Your task to perform on an android device: Go to network settings Image 0: 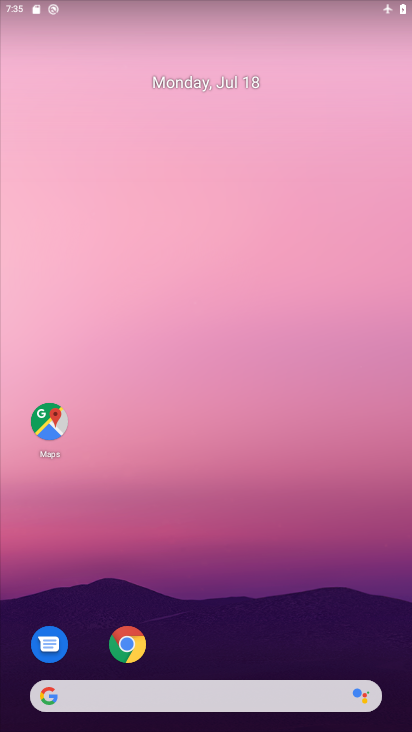
Step 0: drag from (297, 611) to (324, 197)
Your task to perform on an android device: Go to network settings Image 1: 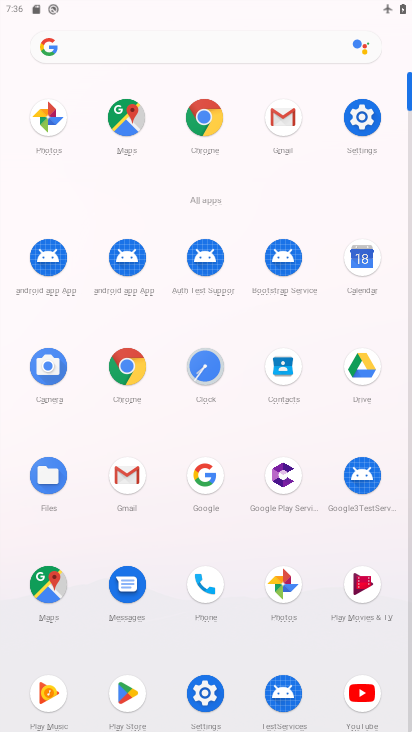
Step 1: click (376, 119)
Your task to perform on an android device: Go to network settings Image 2: 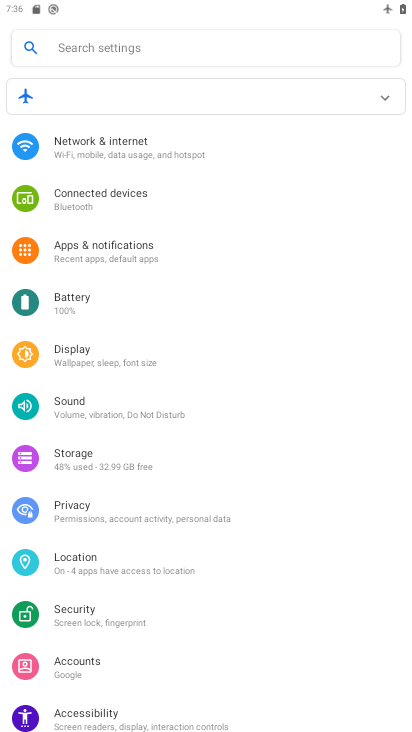
Step 2: drag from (334, 525) to (340, 458)
Your task to perform on an android device: Go to network settings Image 3: 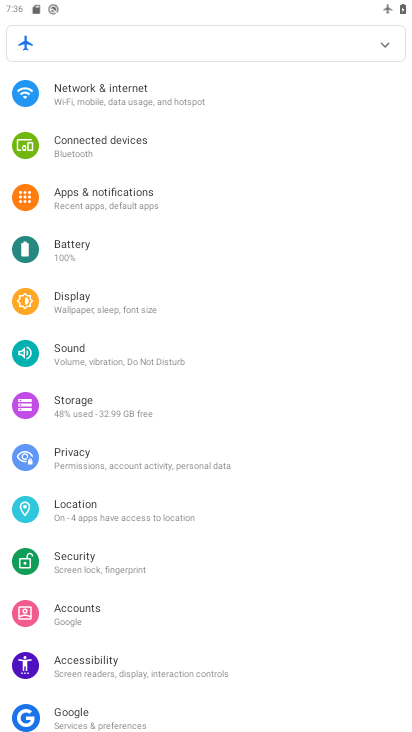
Step 3: drag from (328, 564) to (339, 428)
Your task to perform on an android device: Go to network settings Image 4: 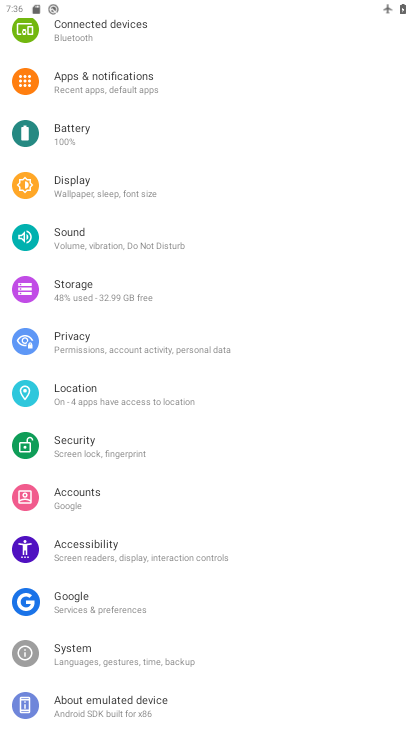
Step 4: drag from (326, 563) to (329, 473)
Your task to perform on an android device: Go to network settings Image 5: 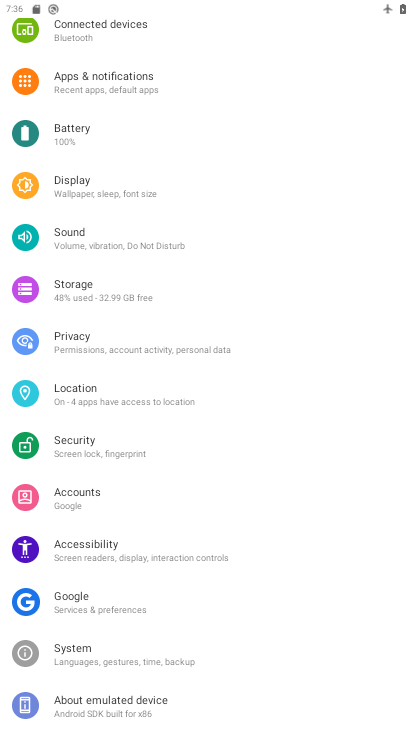
Step 5: drag from (317, 324) to (326, 403)
Your task to perform on an android device: Go to network settings Image 6: 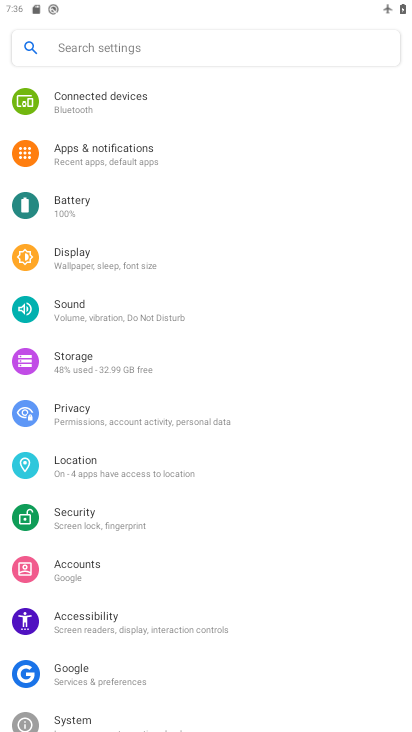
Step 6: drag from (333, 315) to (334, 401)
Your task to perform on an android device: Go to network settings Image 7: 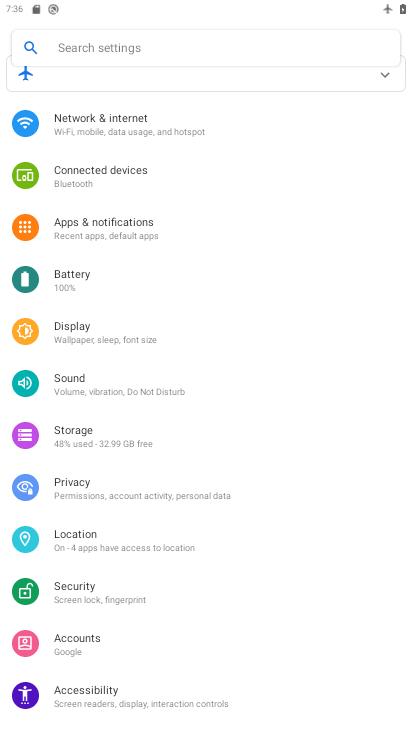
Step 7: drag from (331, 289) to (336, 417)
Your task to perform on an android device: Go to network settings Image 8: 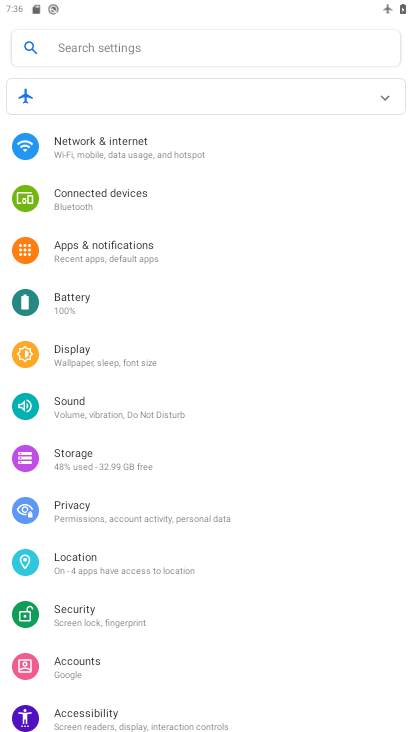
Step 8: click (197, 157)
Your task to perform on an android device: Go to network settings Image 9: 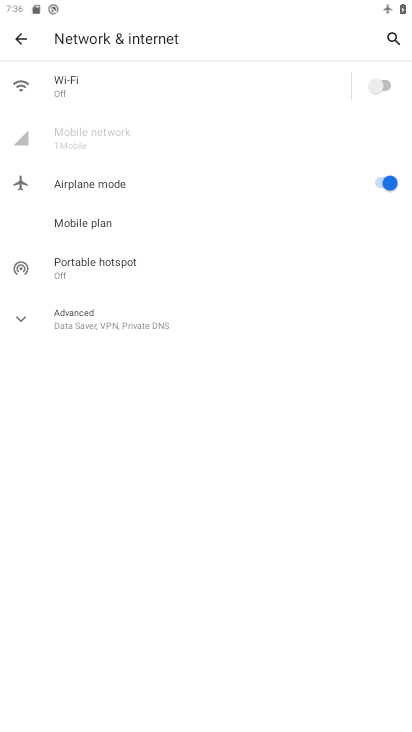
Step 9: task complete